Your task to perform on an android device: turn off notifications in google photos Image 0: 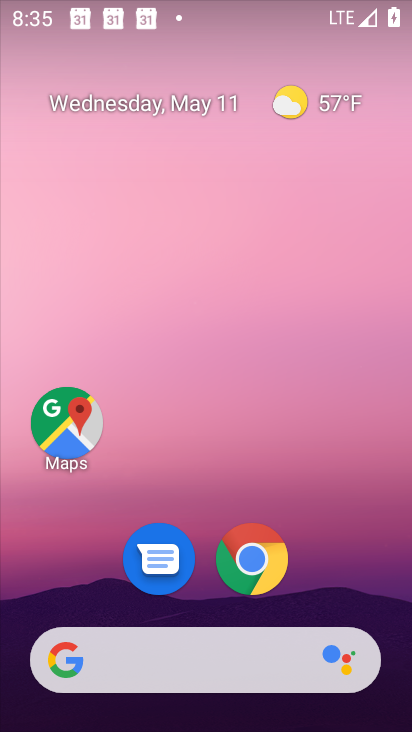
Step 0: drag from (337, 16) to (282, 356)
Your task to perform on an android device: turn off notifications in google photos Image 1: 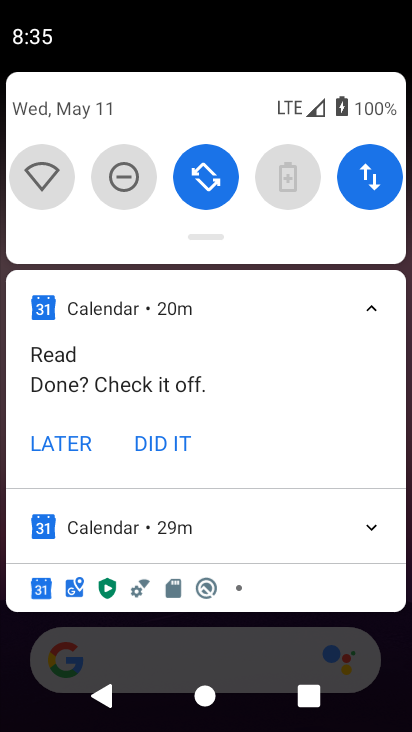
Step 1: drag from (342, 669) to (345, 32)
Your task to perform on an android device: turn off notifications in google photos Image 2: 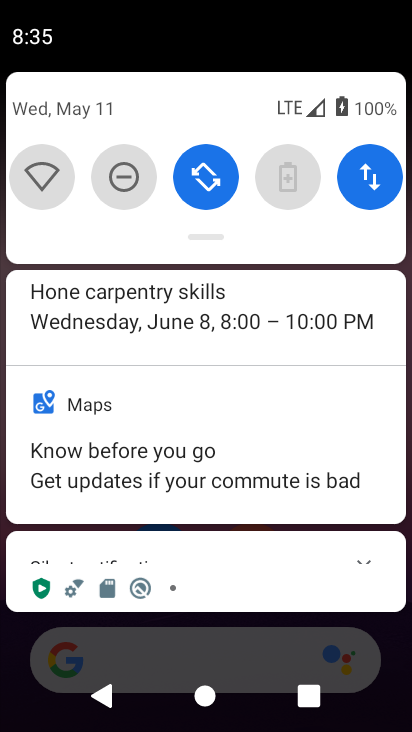
Step 2: drag from (351, 667) to (326, 387)
Your task to perform on an android device: turn off notifications in google photos Image 3: 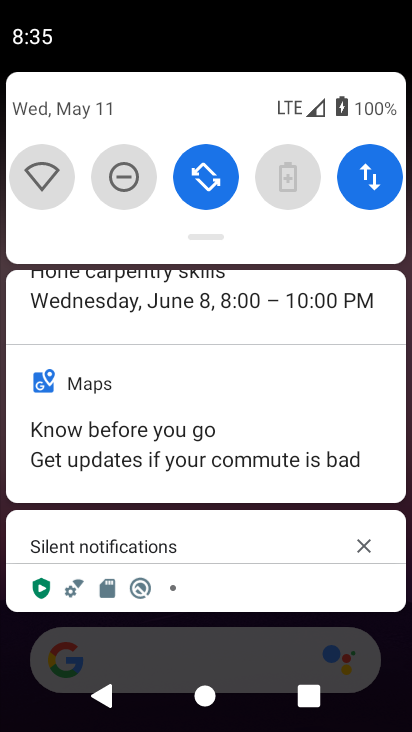
Step 3: drag from (306, 659) to (251, 58)
Your task to perform on an android device: turn off notifications in google photos Image 4: 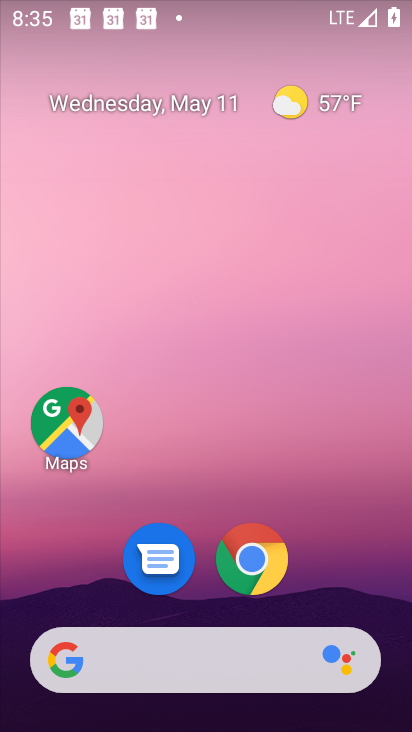
Step 4: drag from (337, 587) to (331, 71)
Your task to perform on an android device: turn off notifications in google photos Image 5: 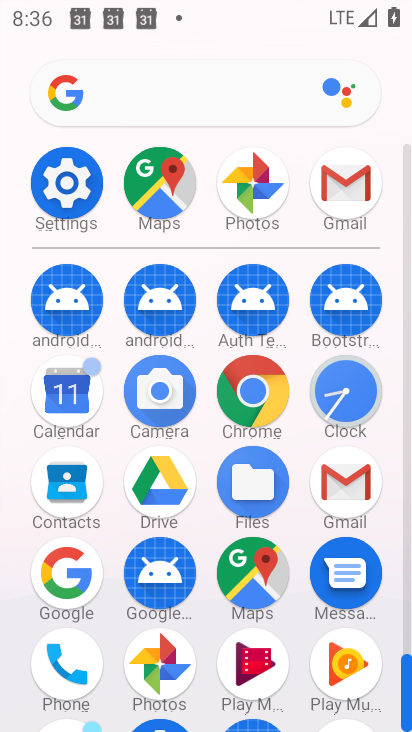
Step 5: click (282, 192)
Your task to perform on an android device: turn off notifications in google photos Image 6: 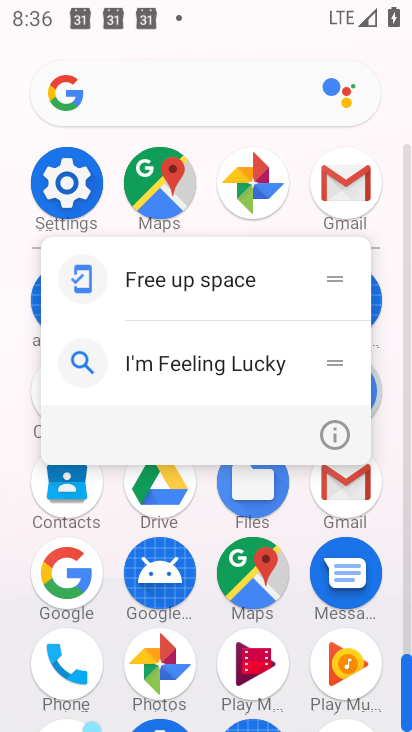
Step 6: click (335, 423)
Your task to perform on an android device: turn off notifications in google photos Image 7: 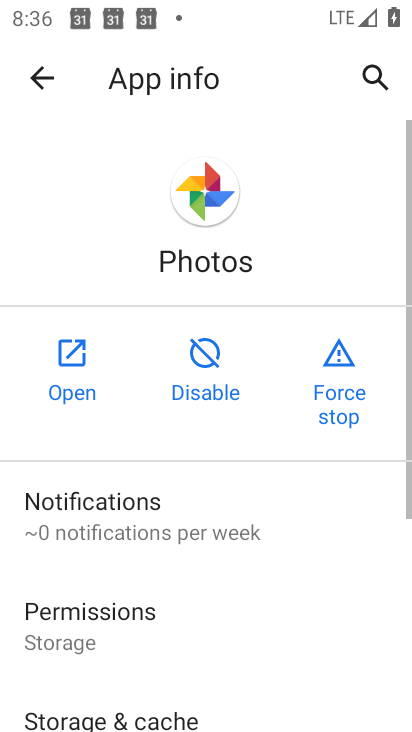
Step 7: click (200, 521)
Your task to perform on an android device: turn off notifications in google photos Image 8: 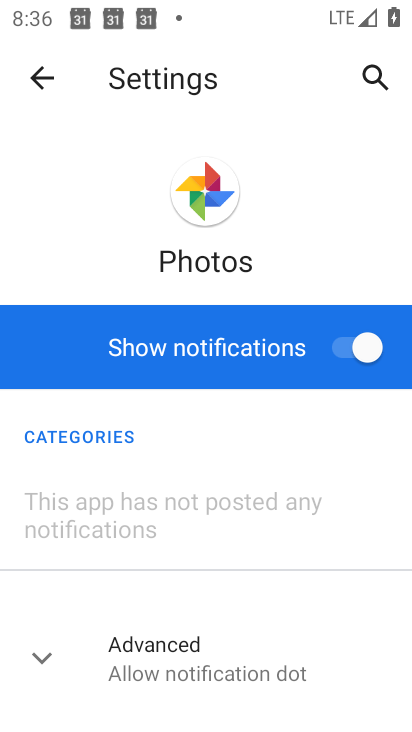
Step 8: click (370, 330)
Your task to perform on an android device: turn off notifications in google photos Image 9: 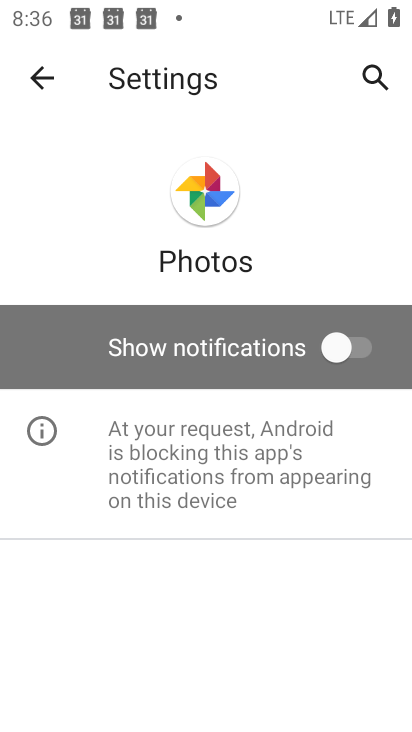
Step 9: task complete